Your task to perform on an android device: turn off notifications settings in the gmail app Image 0: 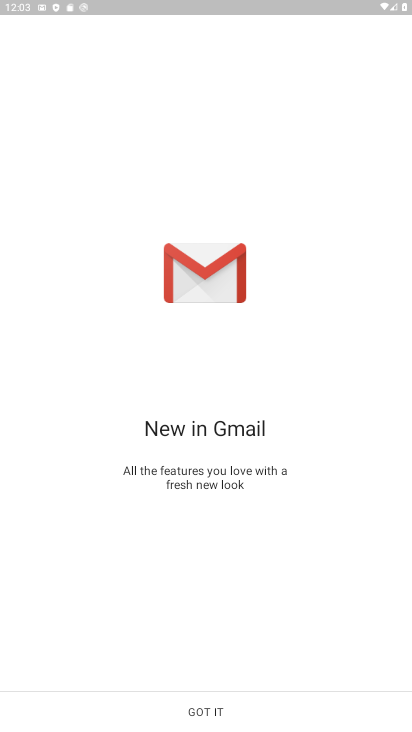
Step 0: press home button
Your task to perform on an android device: turn off notifications settings in the gmail app Image 1: 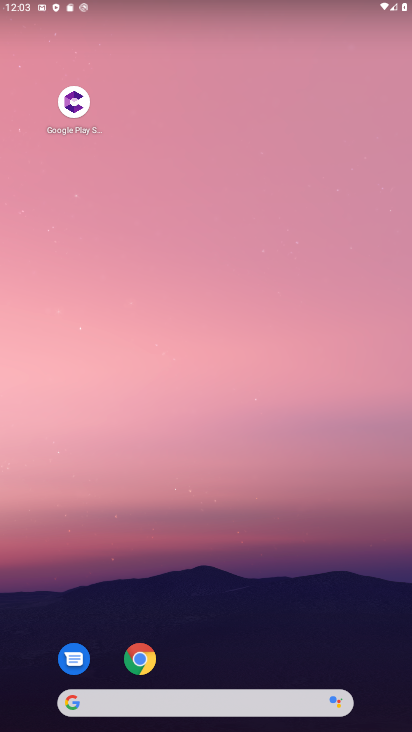
Step 1: drag from (239, 672) to (277, 152)
Your task to perform on an android device: turn off notifications settings in the gmail app Image 2: 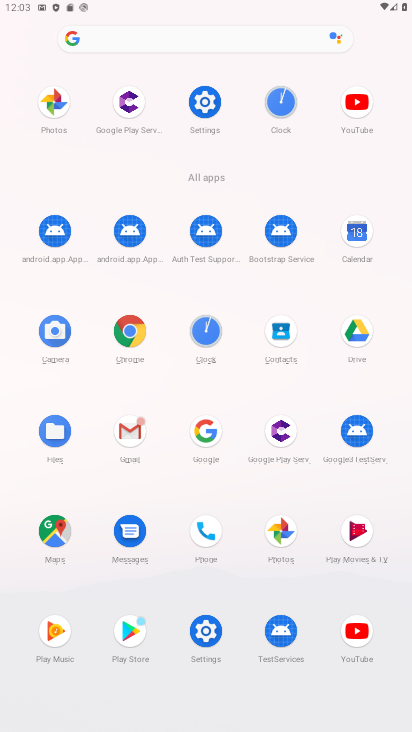
Step 2: click (133, 430)
Your task to perform on an android device: turn off notifications settings in the gmail app Image 3: 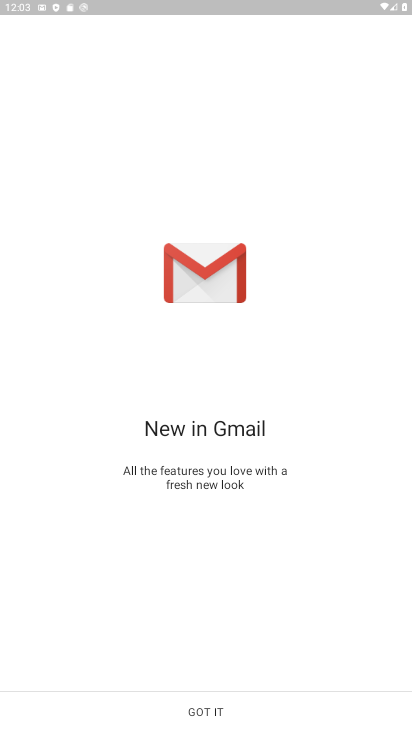
Step 3: click (225, 709)
Your task to perform on an android device: turn off notifications settings in the gmail app Image 4: 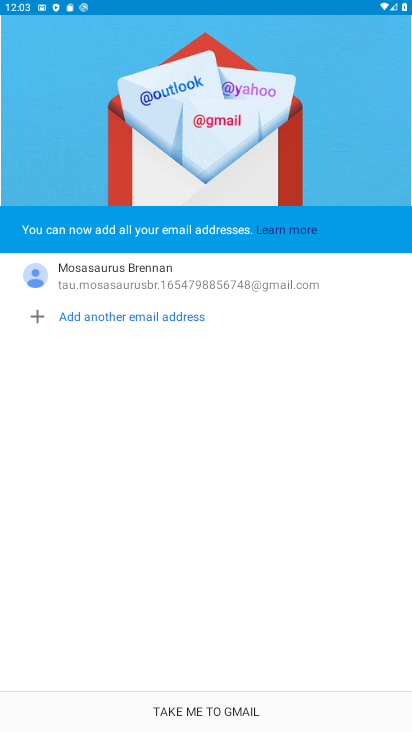
Step 4: click (220, 708)
Your task to perform on an android device: turn off notifications settings in the gmail app Image 5: 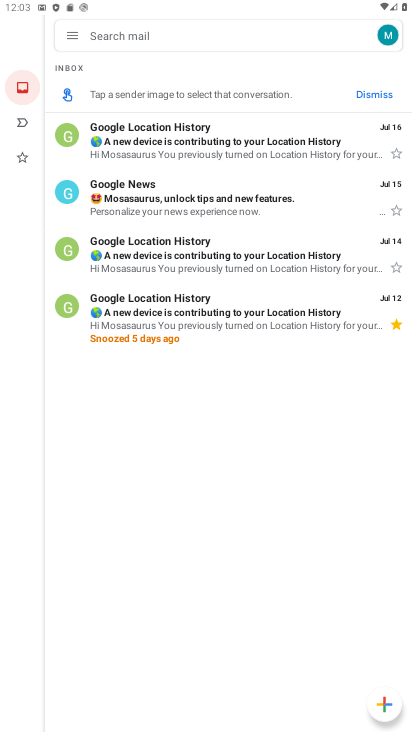
Step 5: click (77, 32)
Your task to perform on an android device: turn off notifications settings in the gmail app Image 6: 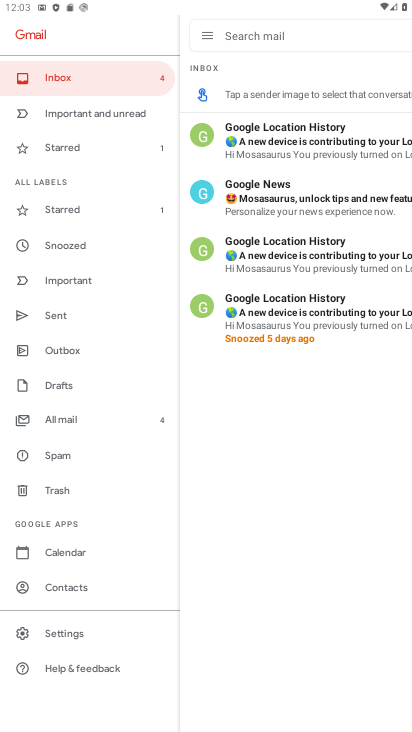
Step 6: click (74, 631)
Your task to perform on an android device: turn off notifications settings in the gmail app Image 7: 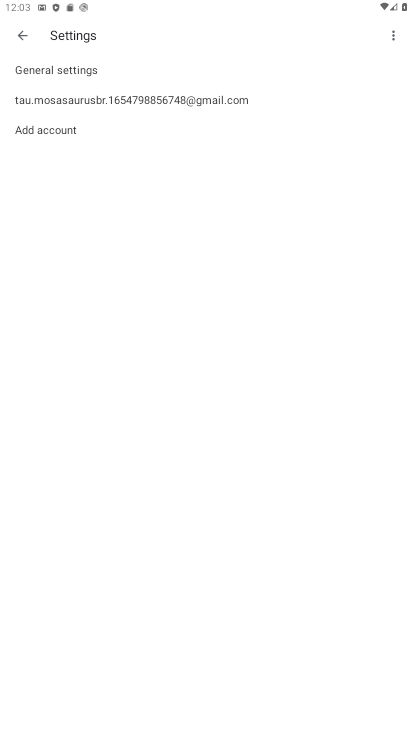
Step 7: click (216, 103)
Your task to perform on an android device: turn off notifications settings in the gmail app Image 8: 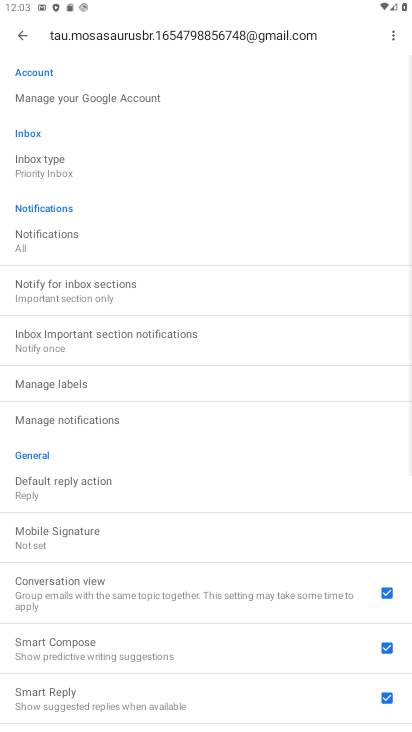
Step 8: click (112, 420)
Your task to perform on an android device: turn off notifications settings in the gmail app Image 9: 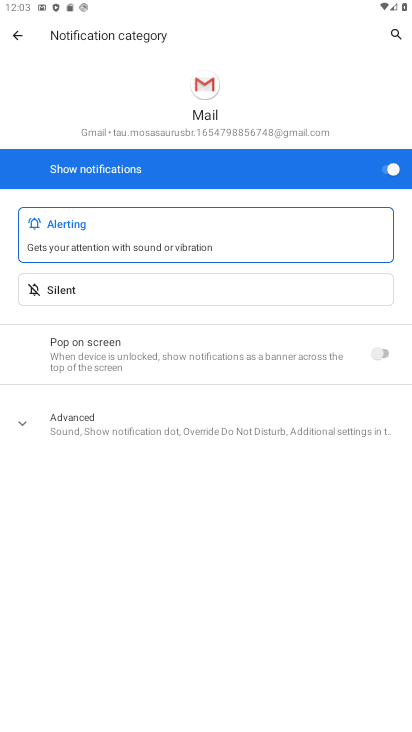
Step 9: click (387, 163)
Your task to perform on an android device: turn off notifications settings in the gmail app Image 10: 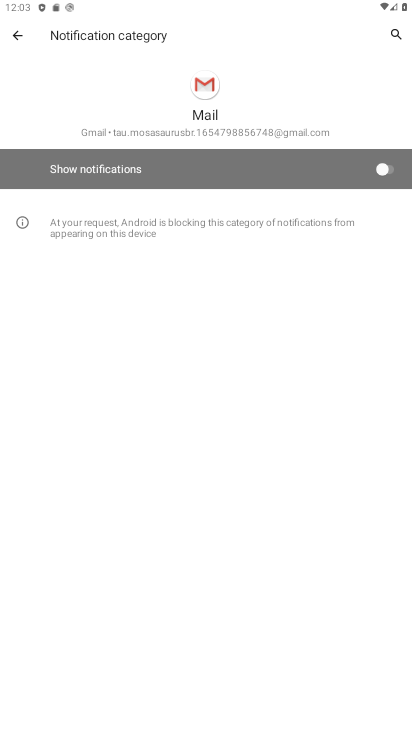
Step 10: task complete